Your task to perform on an android device: open app "LinkedIn" (install if not already installed) and go to login screen Image 0: 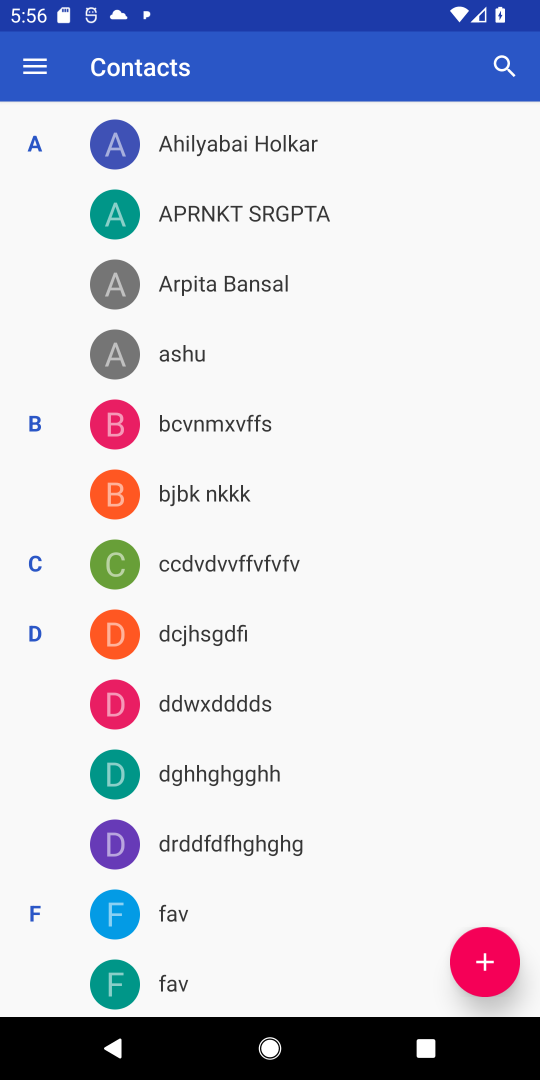
Step 0: press home button
Your task to perform on an android device: open app "LinkedIn" (install if not already installed) and go to login screen Image 1: 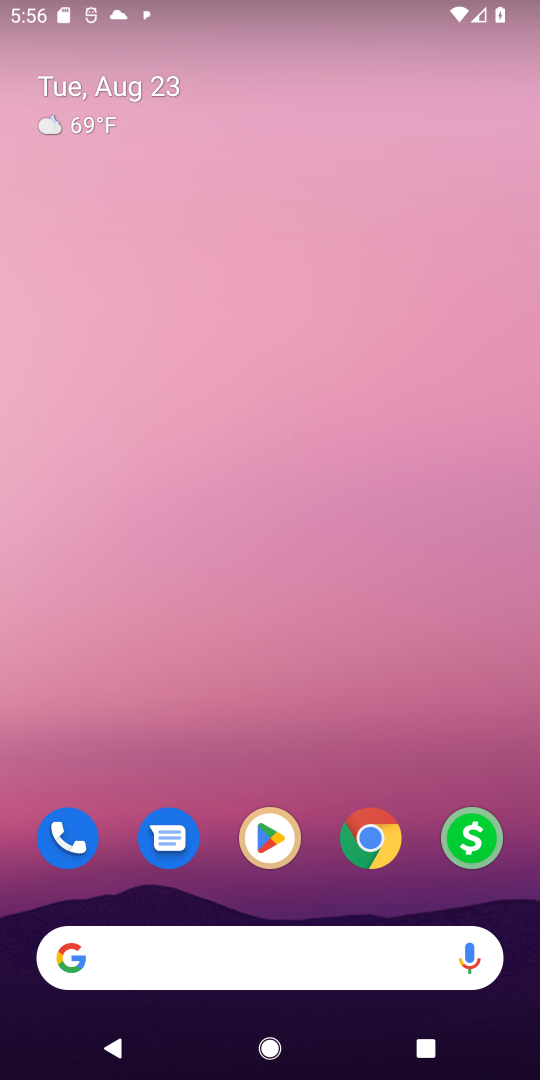
Step 1: click (266, 840)
Your task to perform on an android device: open app "LinkedIn" (install if not already installed) and go to login screen Image 2: 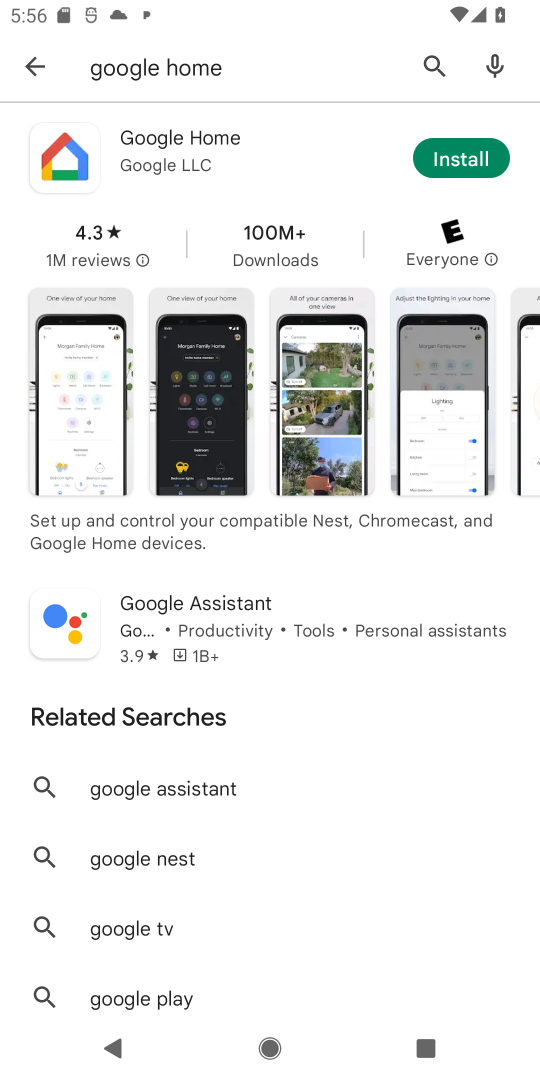
Step 2: click (433, 63)
Your task to perform on an android device: open app "LinkedIn" (install if not already installed) and go to login screen Image 3: 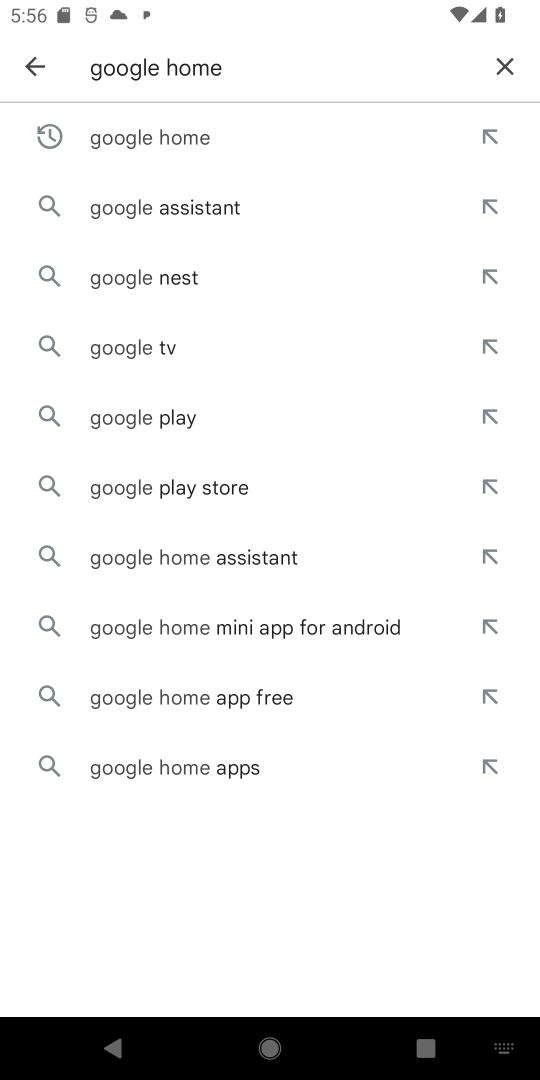
Step 3: click (503, 60)
Your task to perform on an android device: open app "LinkedIn" (install if not already installed) and go to login screen Image 4: 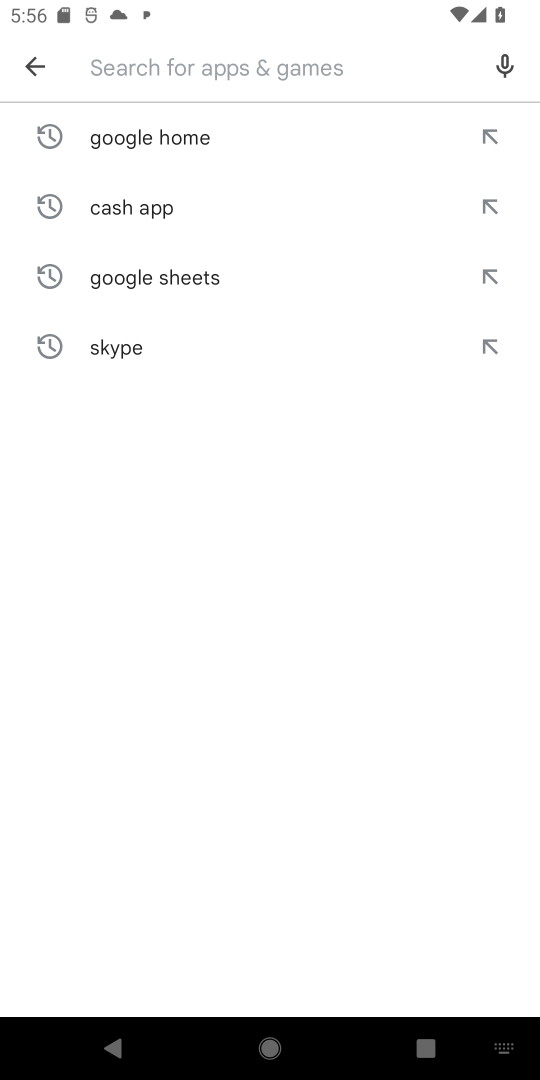
Step 4: type "LinkedIn"
Your task to perform on an android device: open app "LinkedIn" (install if not already installed) and go to login screen Image 5: 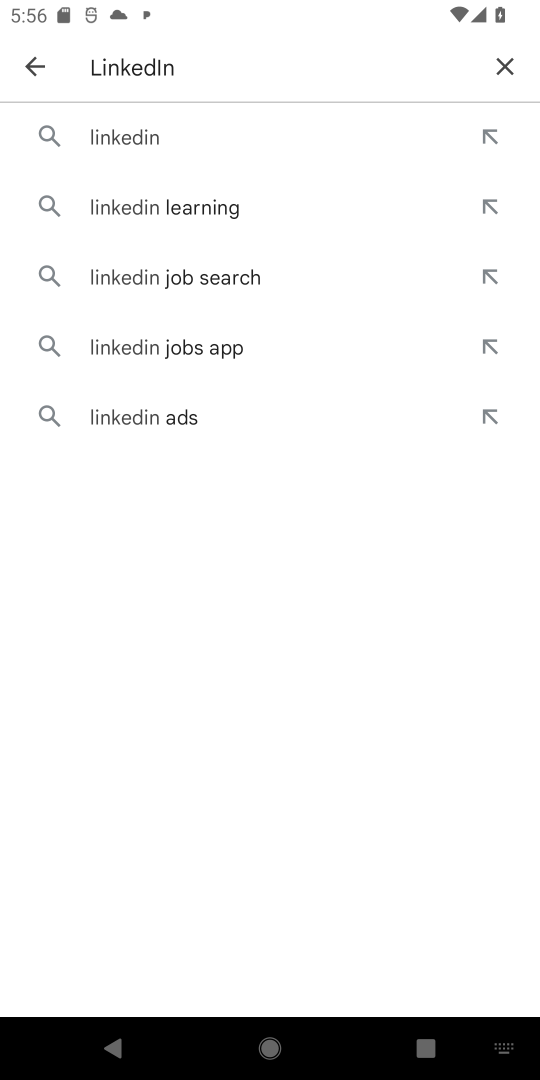
Step 5: click (127, 135)
Your task to perform on an android device: open app "LinkedIn" (install if not already installed) and go to login screen Image 6: 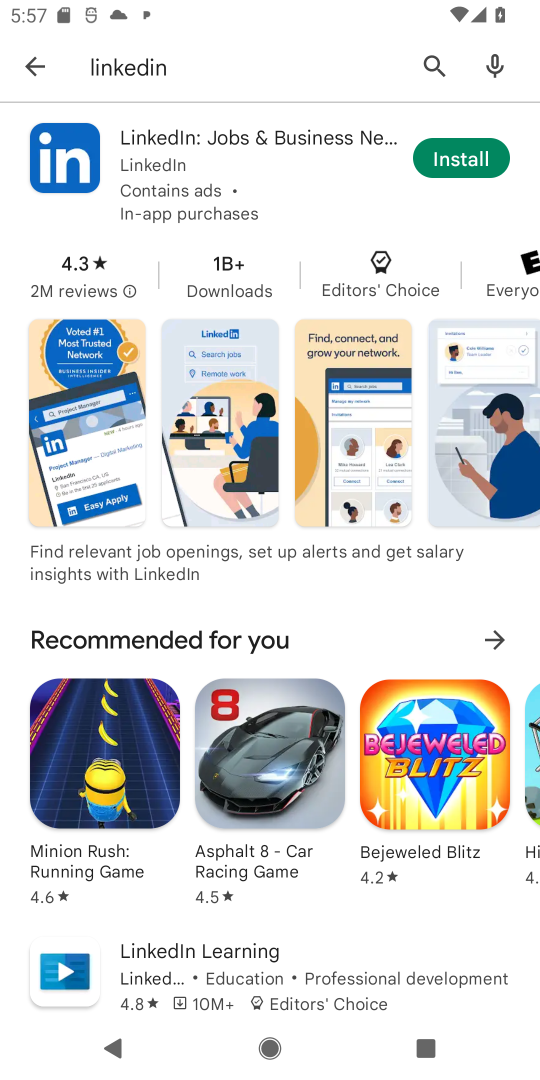
Step 6: click (463, 159)
Your task to perform on an android device: open app "LinkedIn" (install if not already installed) and go to login screen Image 7: 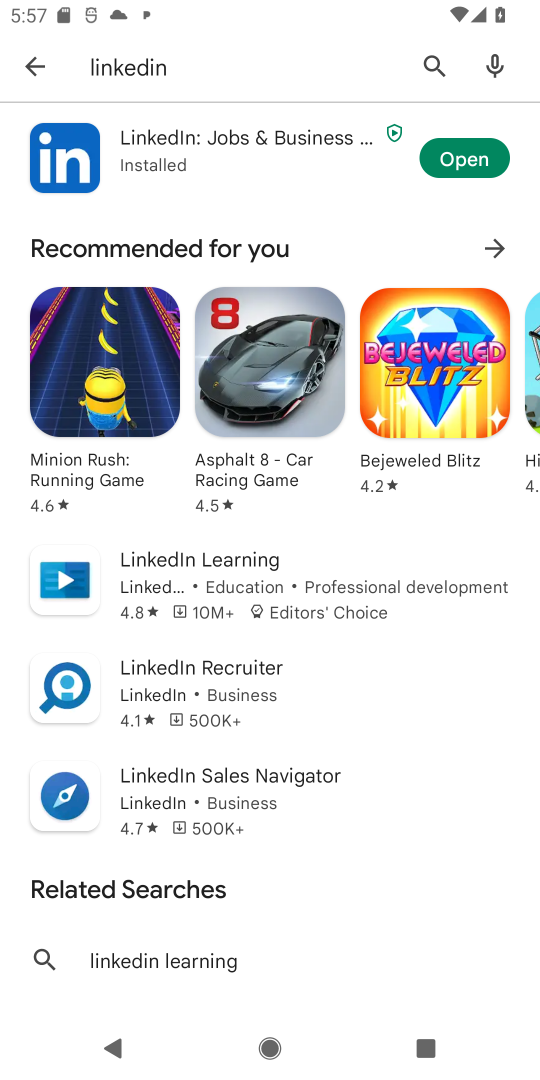
Step 7: click (481, 164)
Your task to perform on an android device: open app "LinkedIn" (install if not already installed) and go to login screen Image 8: 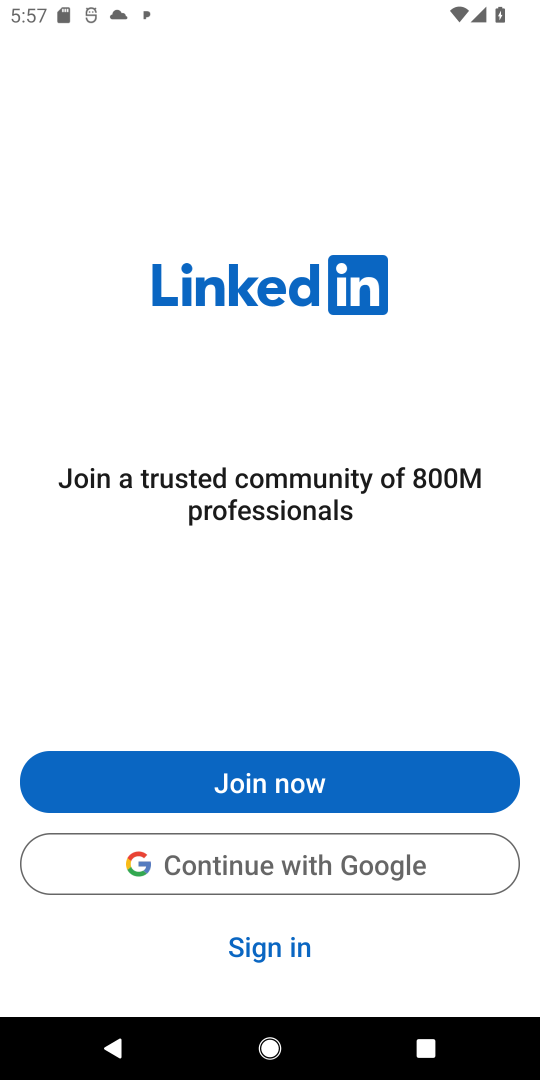
Step 8: task complete